Your task to perform on an android device: Open Google Chrome and open the bookmarks view Image 0: 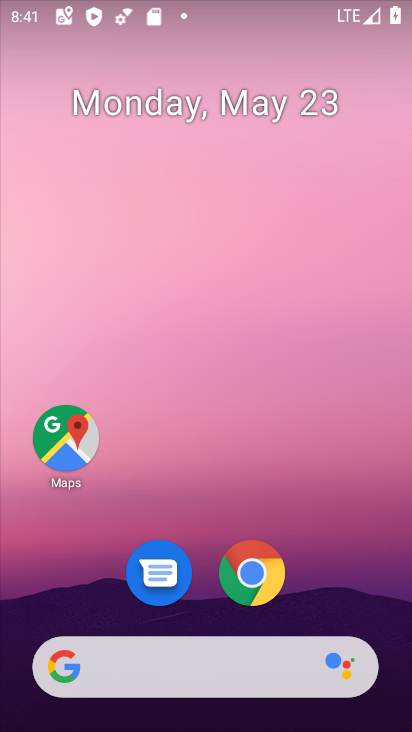
Step 0: click (259, 579)
Your task to perform on an android device: Open Google Chrome and open the bookmarks view Image 1: 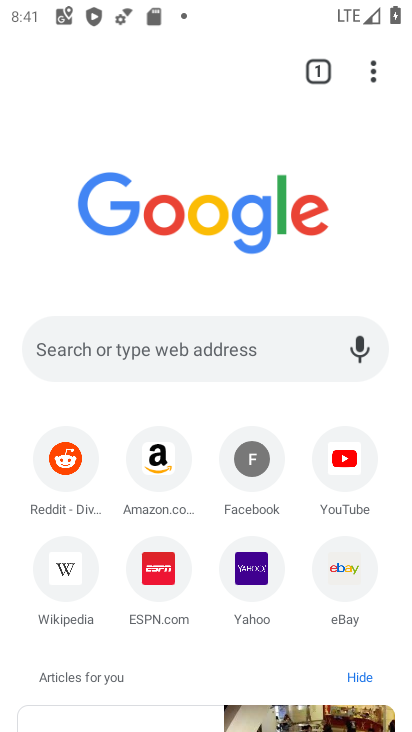
Step 1: click (371, 69)
Your task to perform on an android device: Open Google Chrome and open the bookmarks view Image 2: 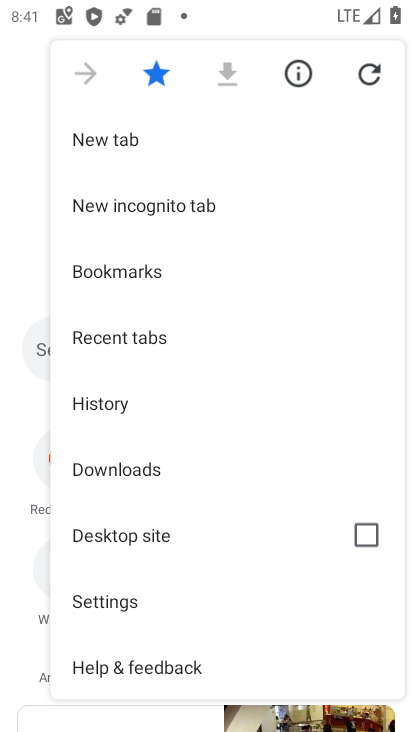
Step 2: click (181, 272)
Your task to perform on an android device: Open Google Chrome and open the bookmarks view Image 3: 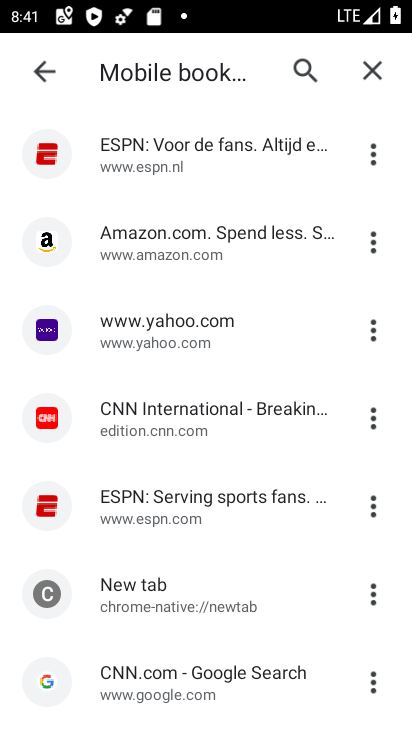
Step 3: task complete